Your task to perform on an android device: Go to privacy settings Image 0: 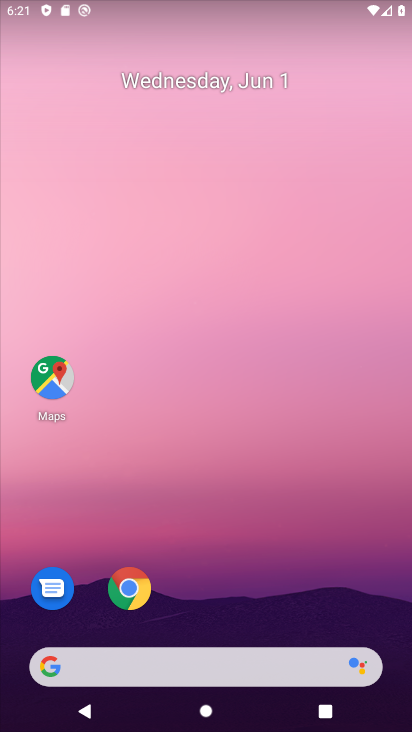
Step 0: drag from (194, 592) to (213, 80)
Your task to perform on an android device: Go to privacy settings Image 1: 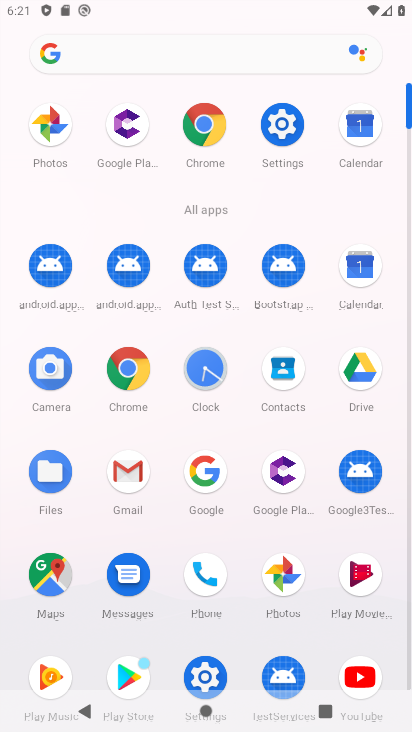
Step 1: click (274, 133)
Your task to perform on an android device: Go to privacy settings Image 2: 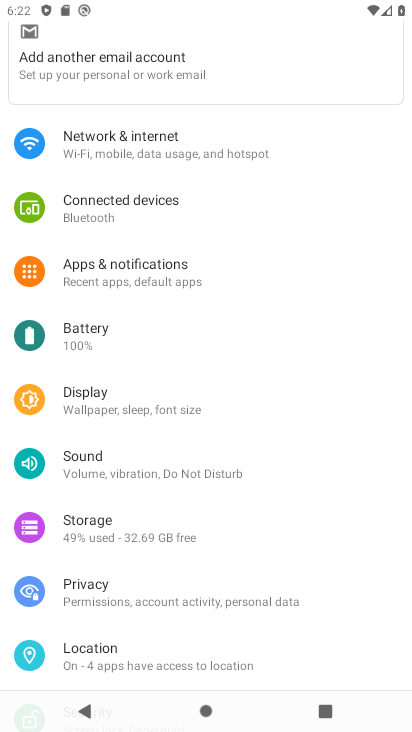
Step 2: click (107, 601)
Your task to perform on an android device: Go to privacy settings Image 3: 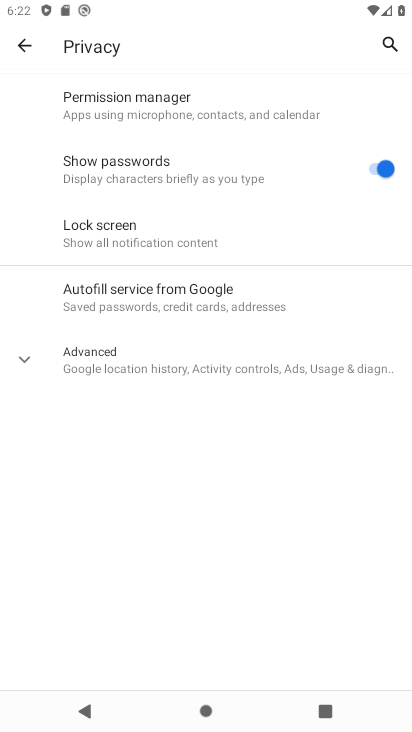
Step 3: task complete